Your task to perform on an android device: open app "Messenger Lite" (install if not already installed) and go to login screen Image 0: 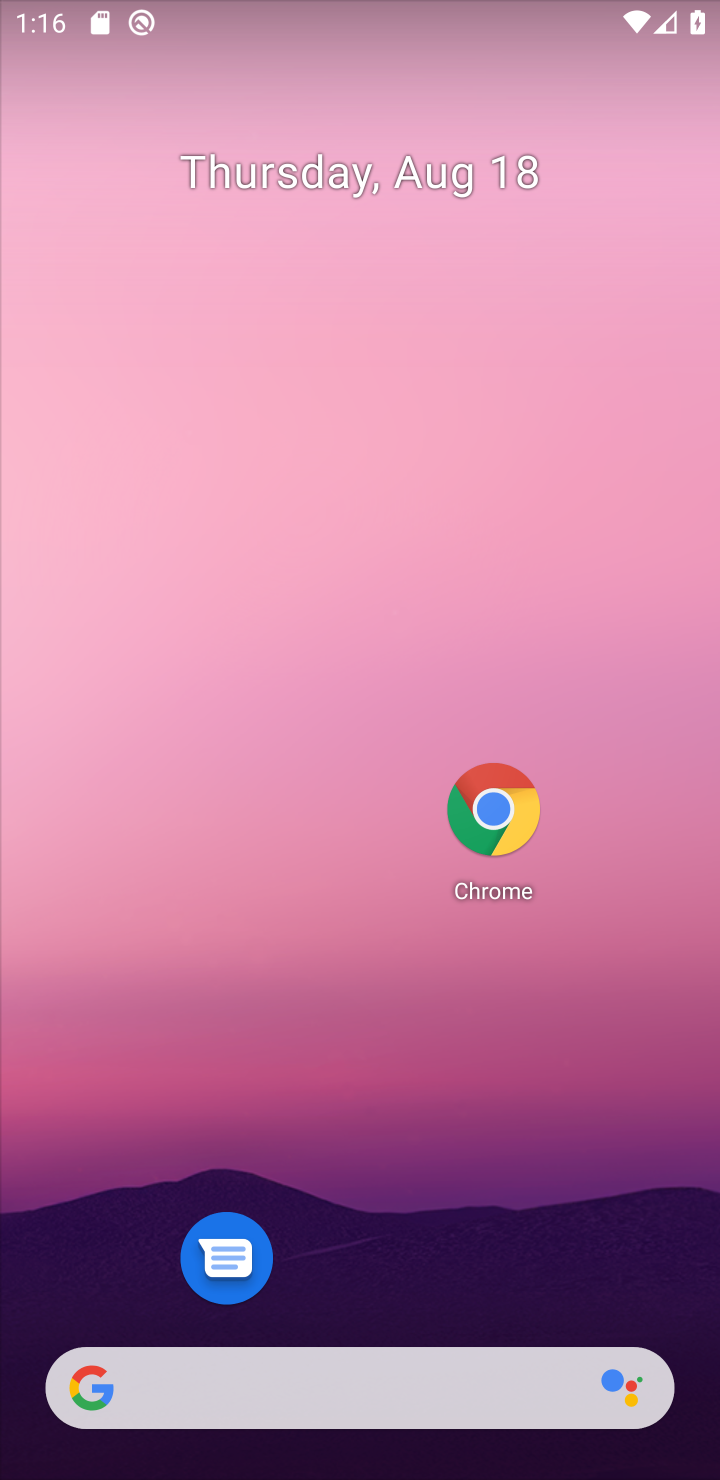
Step 0: drag from (407, 1222) to (402, 256)
Your task to perform on an android device: open app "Messenger Lite" (install if not already installed) and go to login screen Image 1: 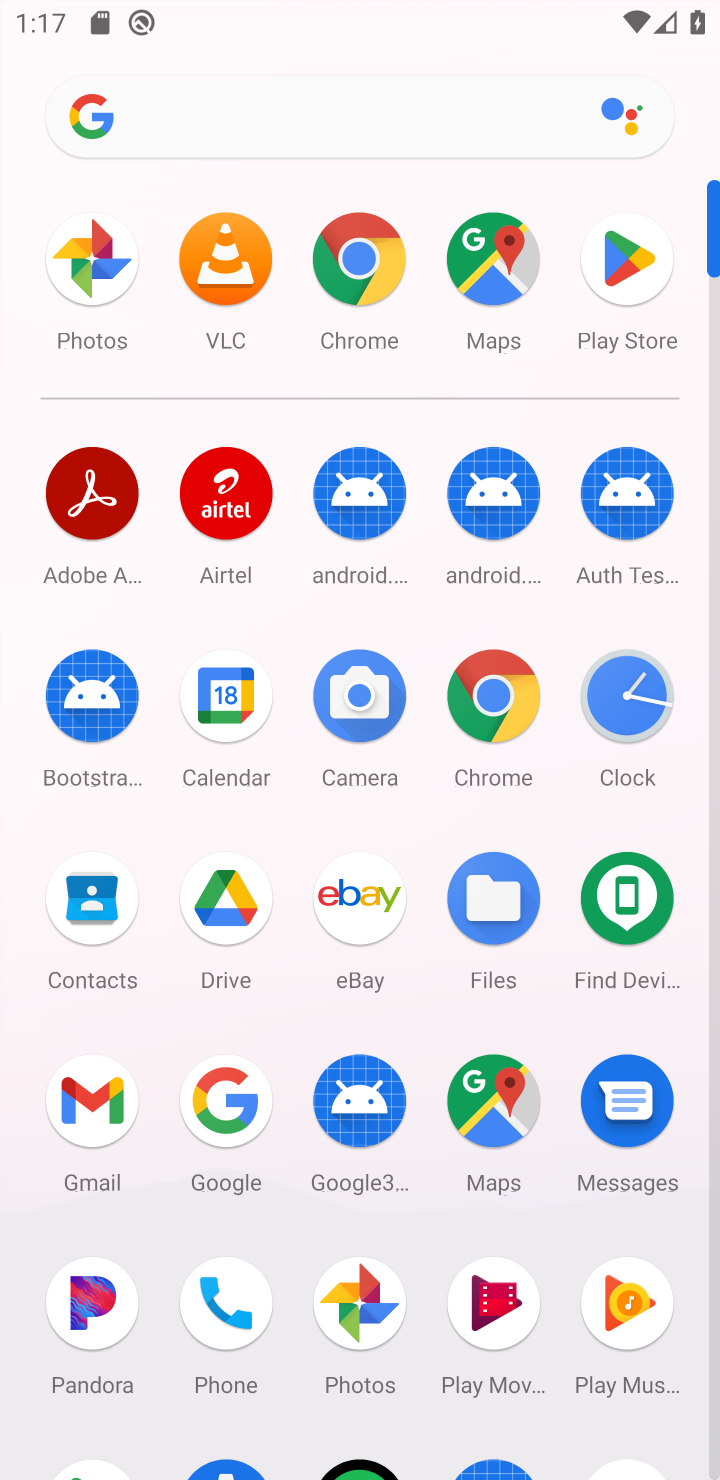
Step 1: click (640, 251)
Your task to perform on an android device: open app "Messenger Lite" (install if not already installed) and go to login screen Image 2: 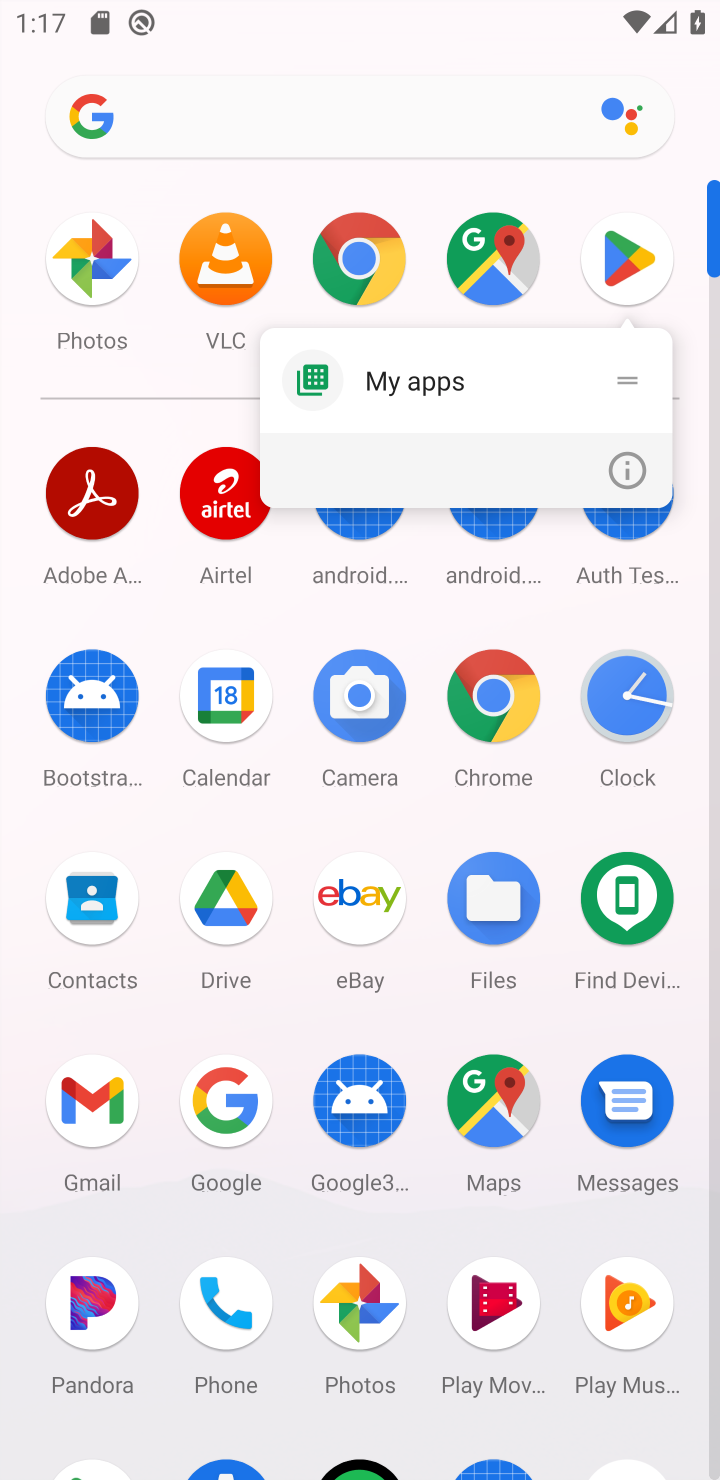
Step 2: click (640, 259)
Your task to perform on an android device: open app "Messenger Lite" (install if not already installed) and go to login screen Image 3: 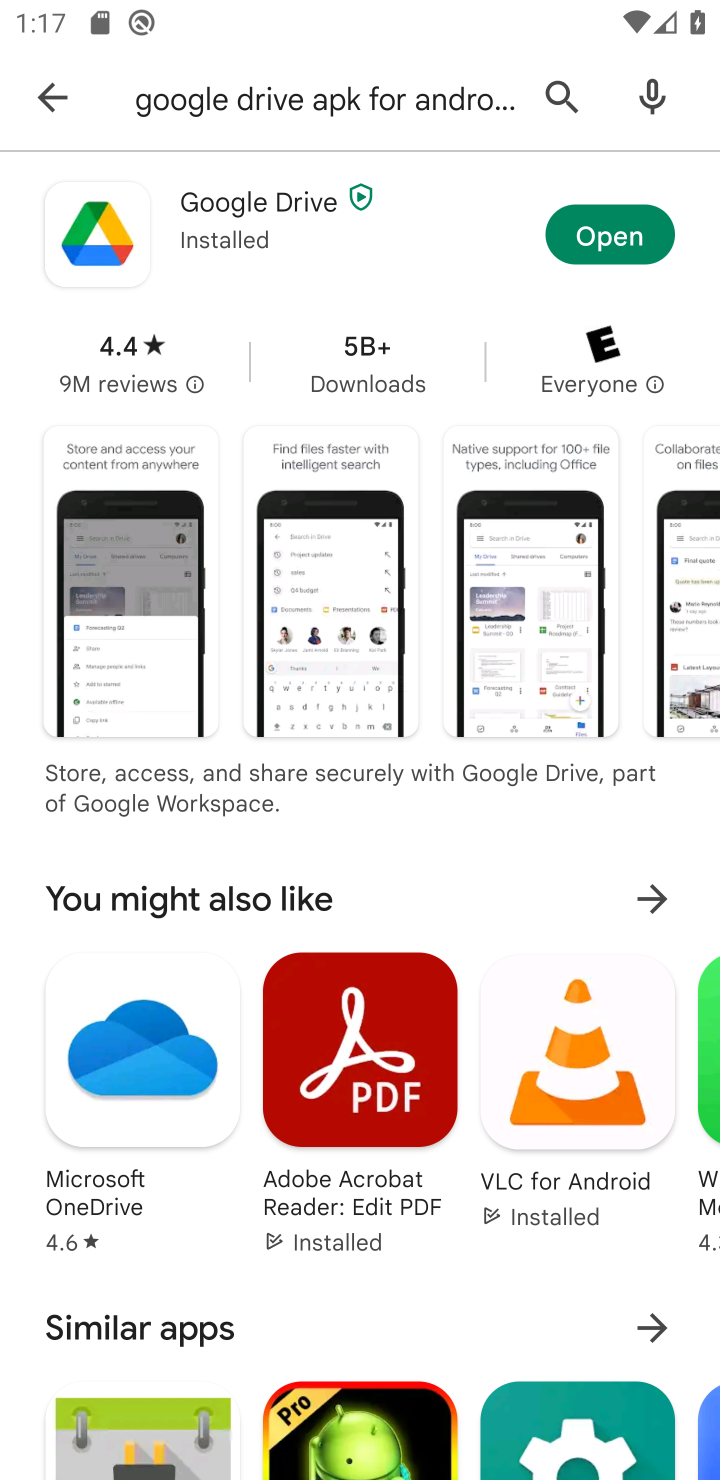
Step 3: click (33, 90)
Your task to perform on an android device: open app "Messenger Lite" (install if not already installed) and go to login screen Image 4: 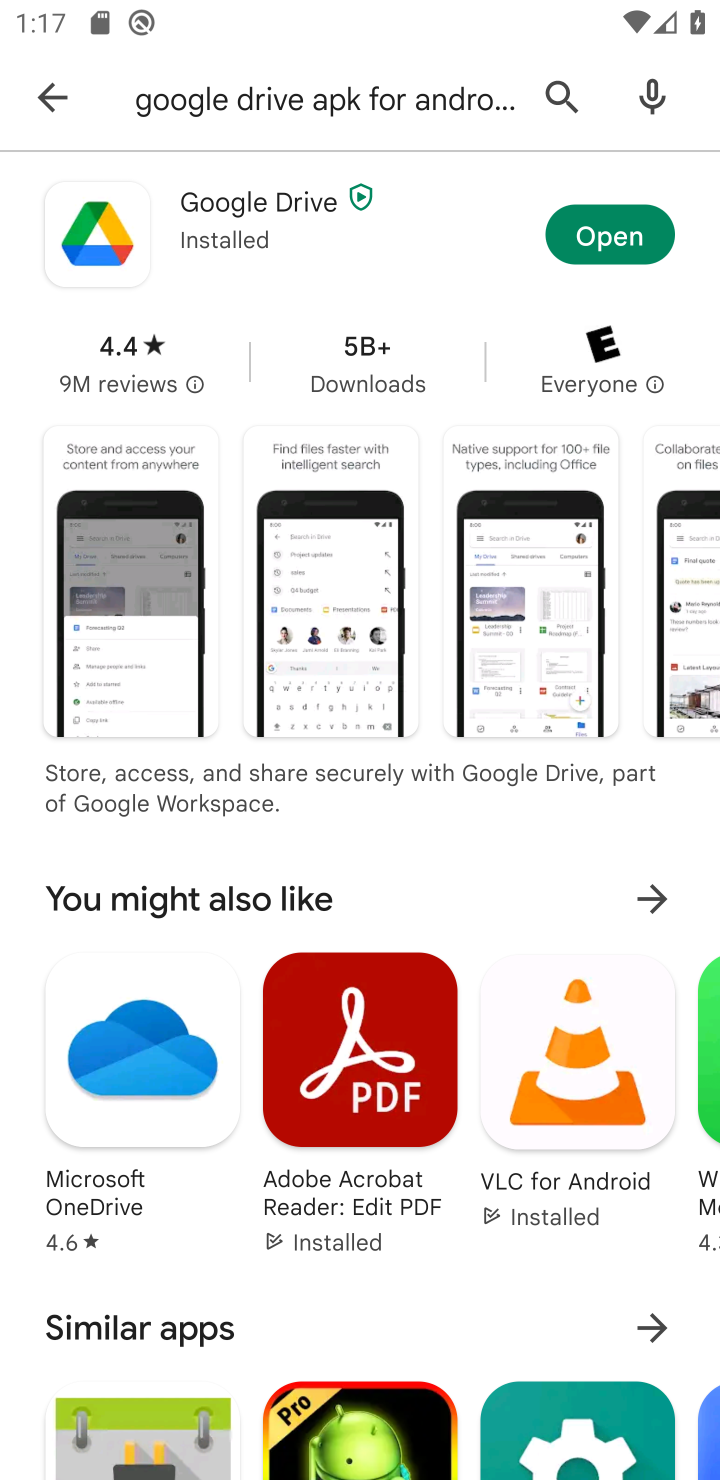
Step 4: click (33, 90)
Your task to perform on an android device: open app "Messenger Lite" (install if not already installed) and go to login screen Image 5: 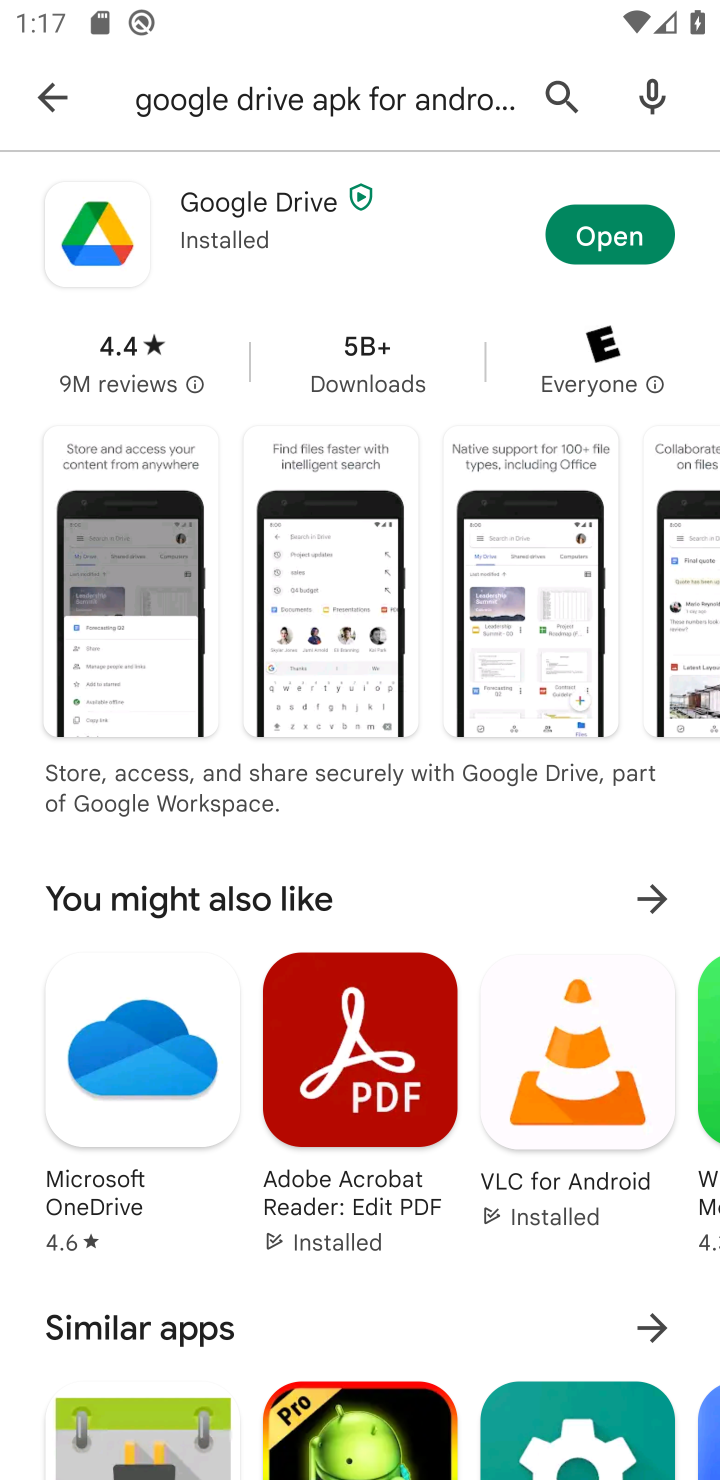
Step 5: click (551, 75)
Your task to perform on an android device: open app "Messenger Lite" (install if not already installed) and go to login screen Image 6: 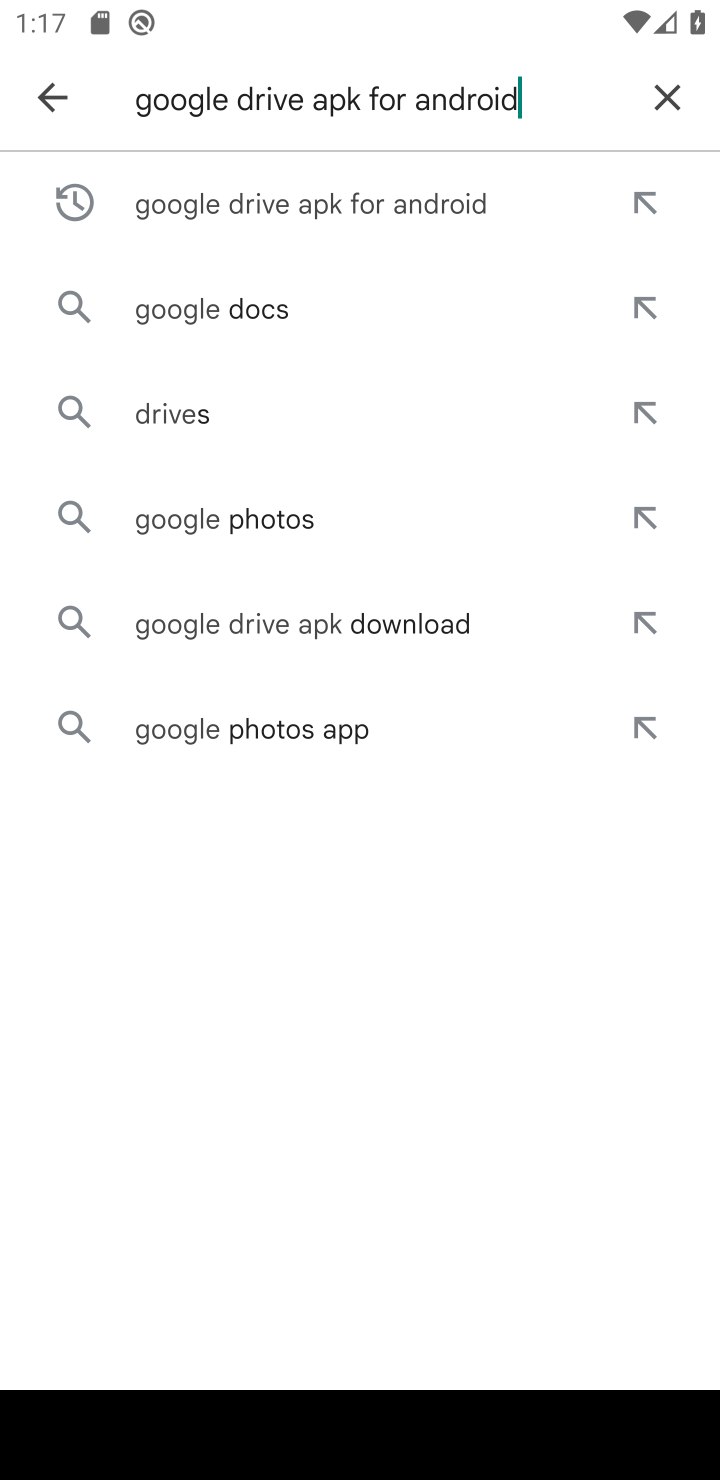
Step 6: click (688, 82)
Your task to perform on an android device: open app "Messenger Lite" (install if not already installed) and go to login screen Image 7: 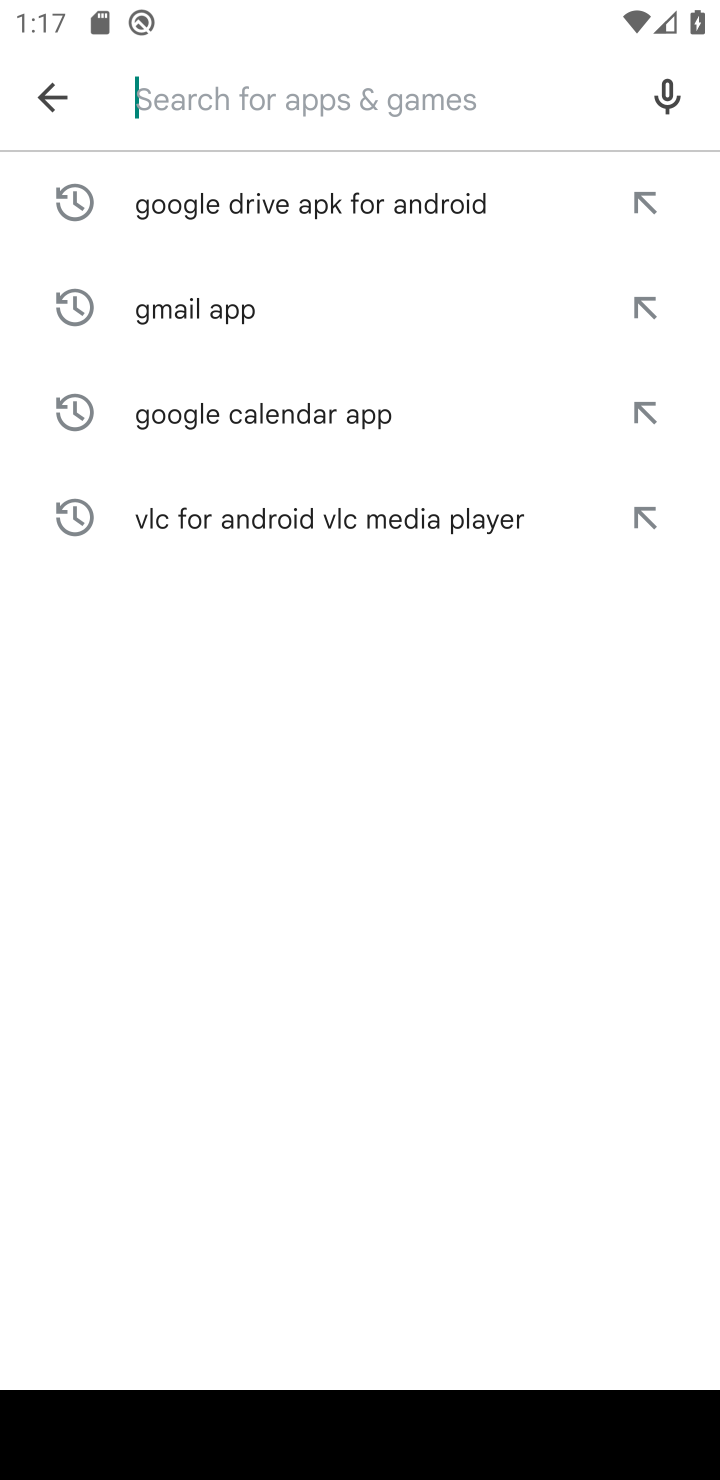
Step 7: click (355, 56)
Your task to perform on an android device: open app "Messenger Lite" (install if not already installed) and go to login screen Image 8: 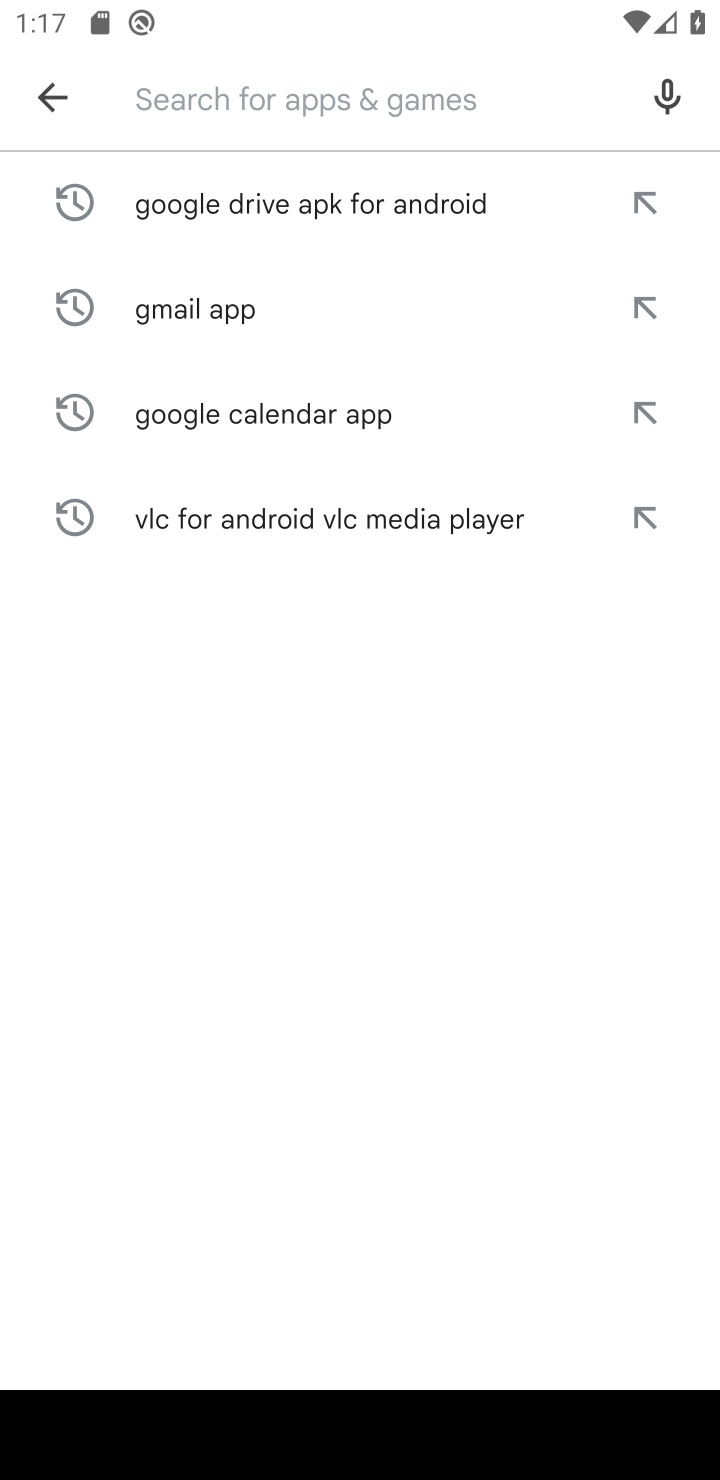
Step 8: click (370, 85)
Your task to perform on an android device: open app "Messenger Lite" (install if not already installed) and go to login screen Image 9: 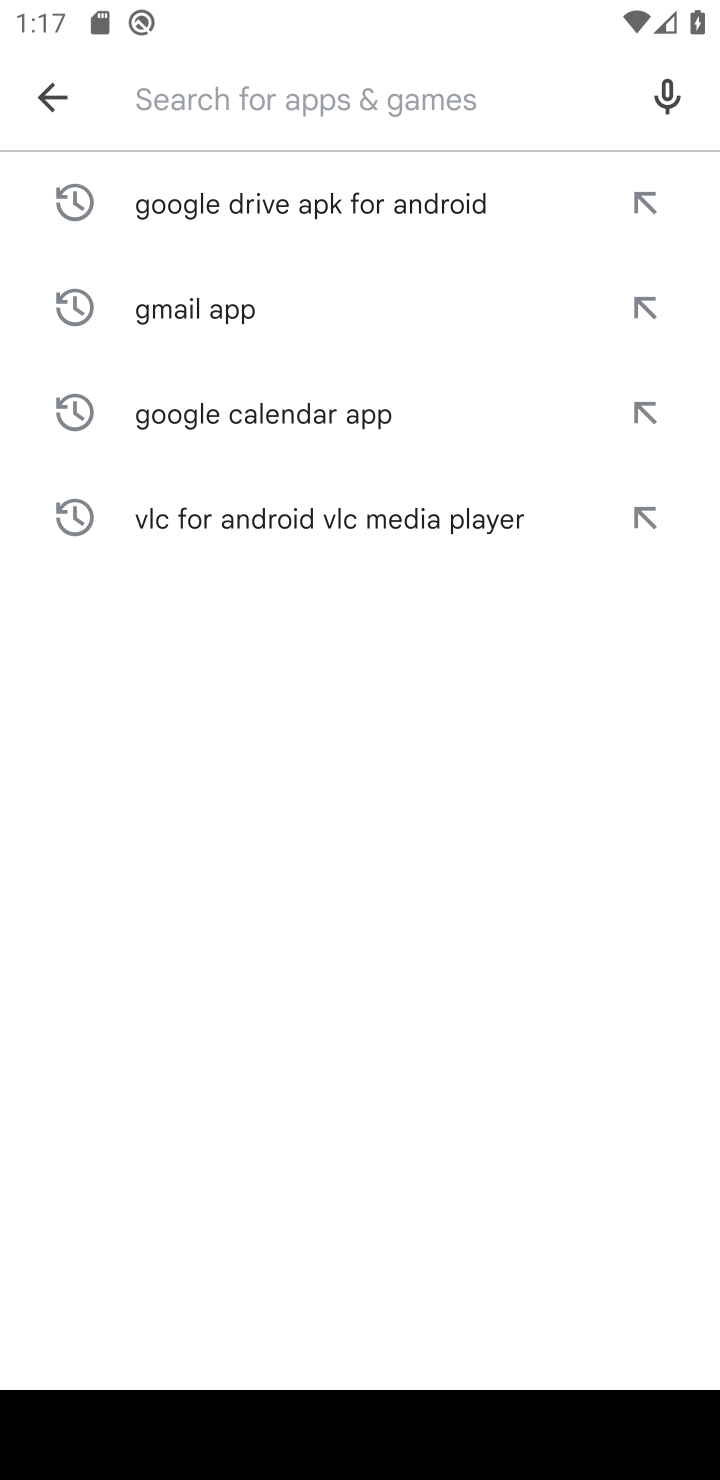
Step 9: type "Messenger Lite "
Your task to perform on an android device: open app "Messenger Lite" (install if not already installed) and go to login screen Image 10: 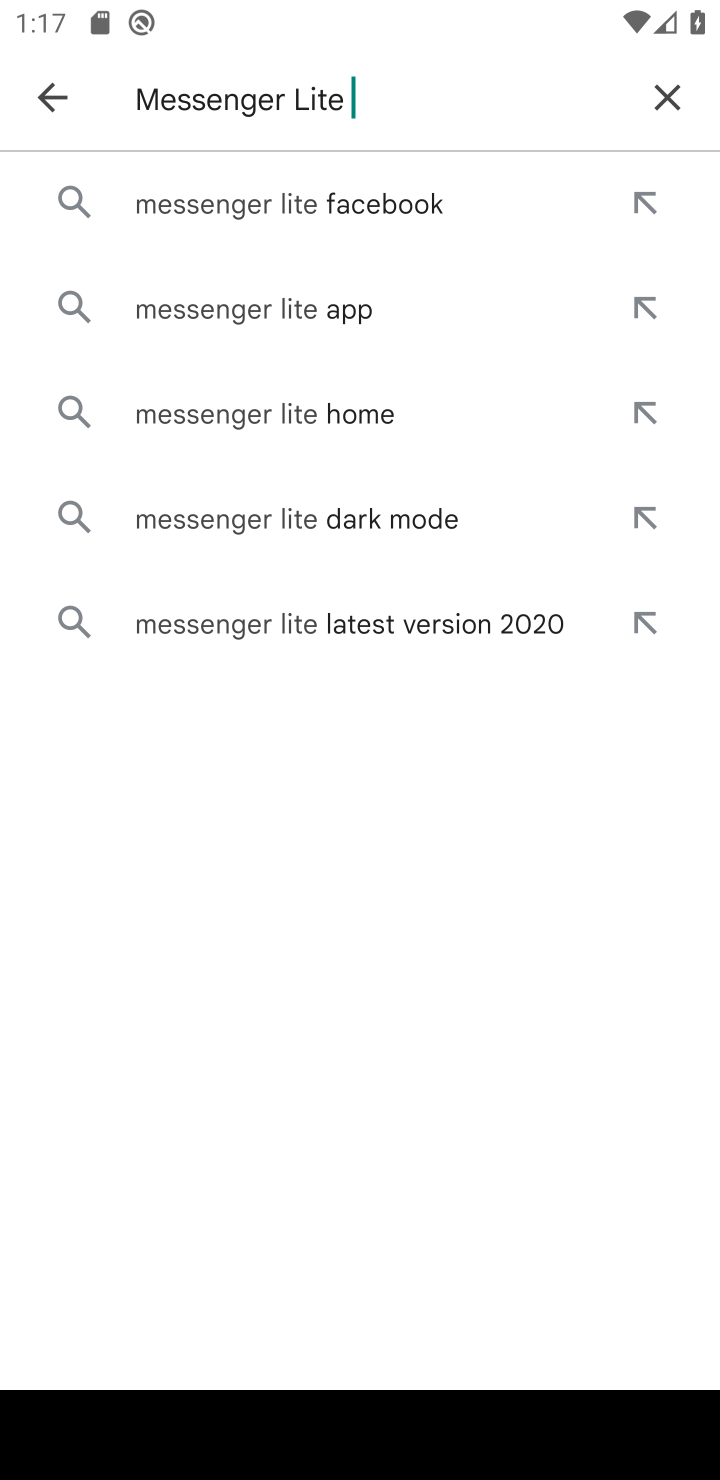
Step 10: click (316, 295)
Your task to perform on an android device: open app "Messenger Lite" (install if not already installed) and go to login screen Image 11: 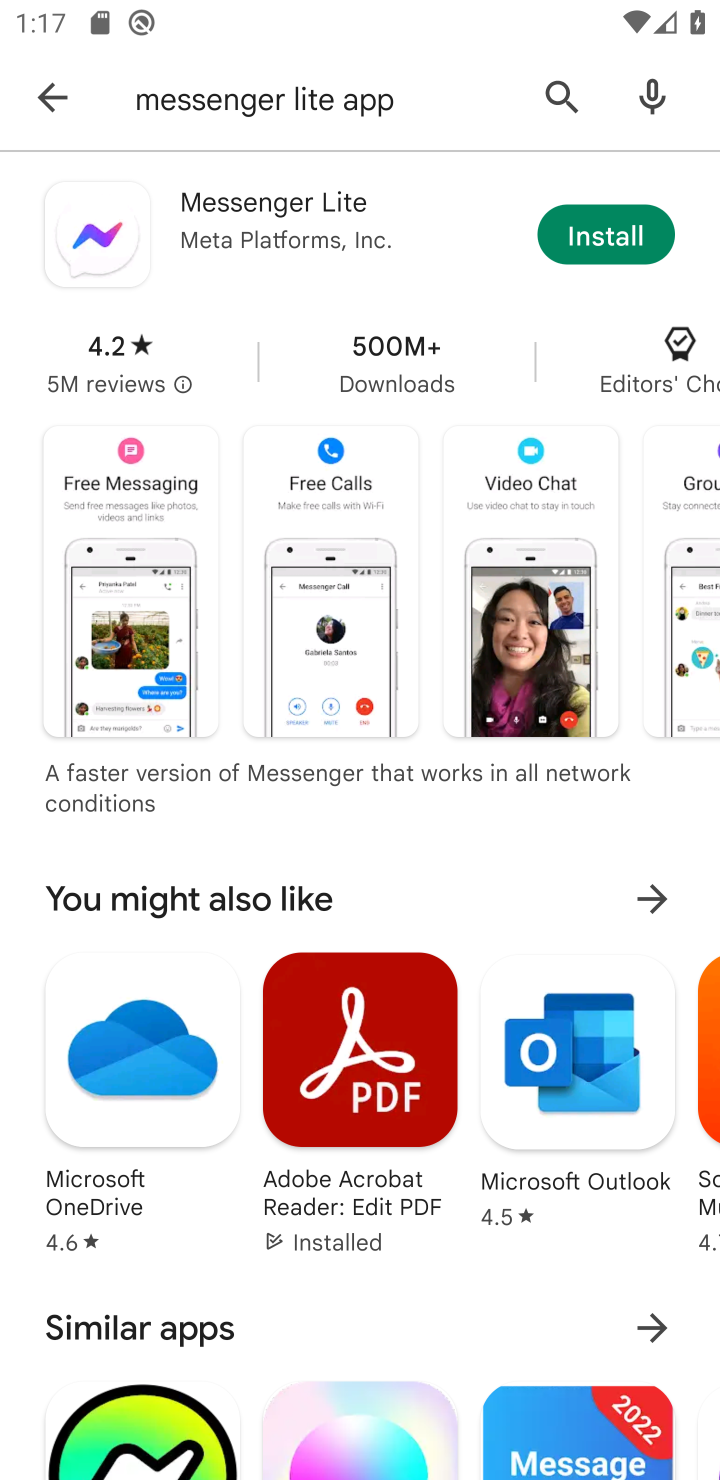
Step 11: click (547, 211)
Your task to perform on an android device: open app "Messenger Lite" (install if not already installed) and go to login screen Image 12: 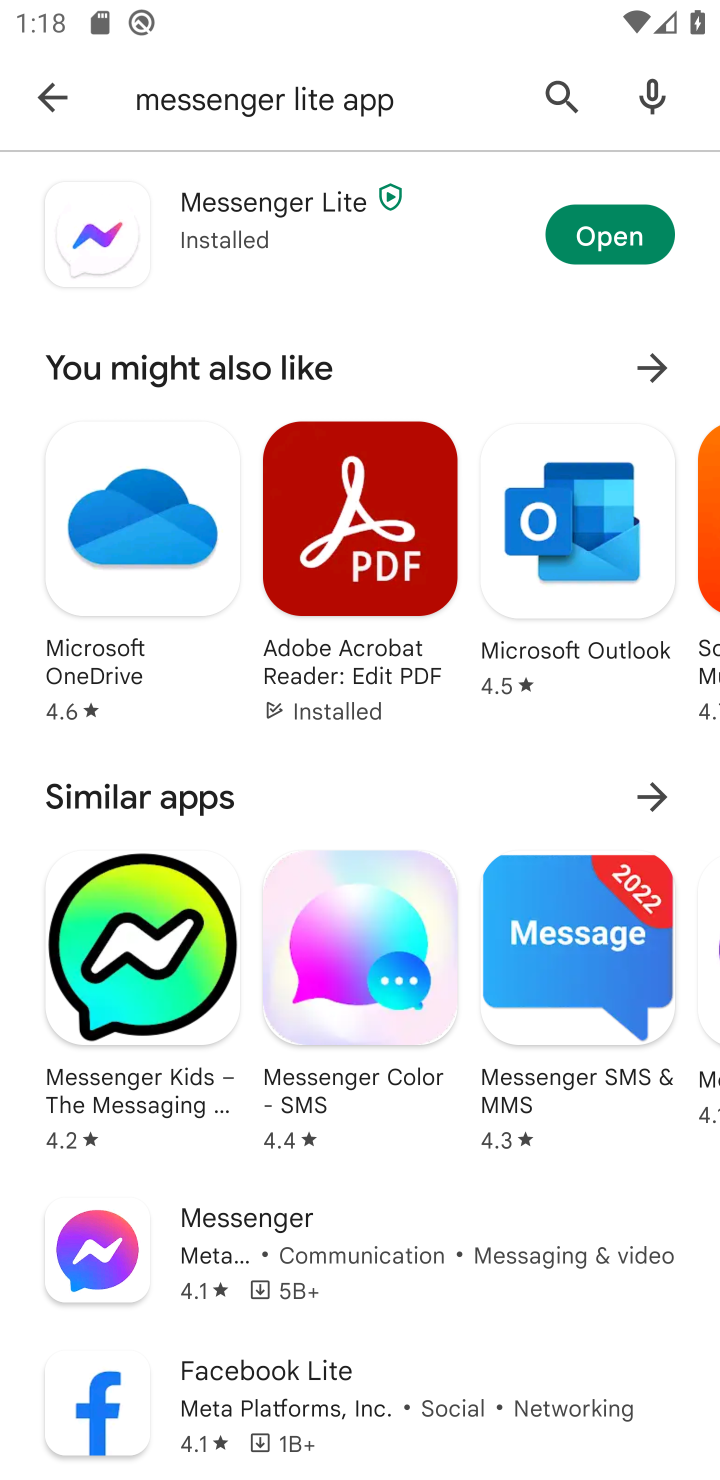
Step 12: task complete